Your task to perform on an android device: empty trash in google photos Image 0: 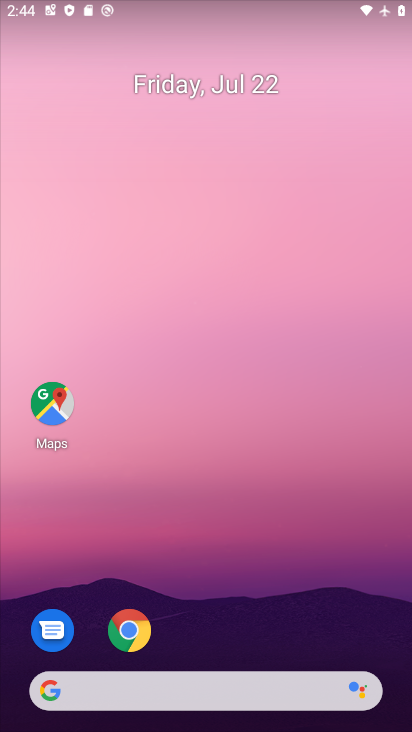
Step 0: drag from (185, 677) to (170, 146)
Your task to perform on an android device: empty trash in google photos Image 1: 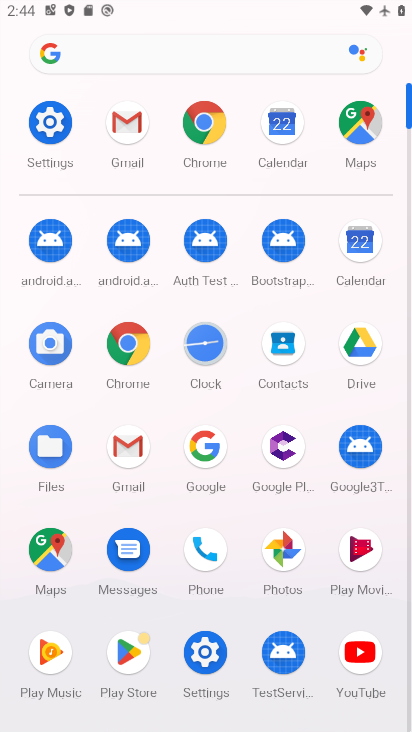
Step 1: click (284, 548)
Your task to perform on an android device: empty trash in google photos Image 2: 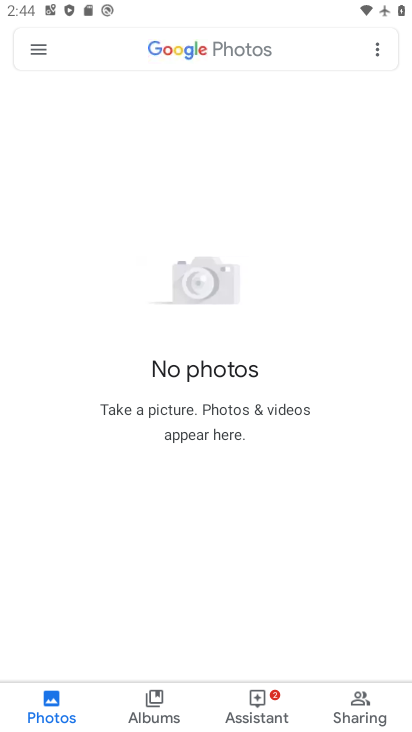
Step 2: click (38, 49)
Your task to perform on an android device: empty trash in google photos Image 3: 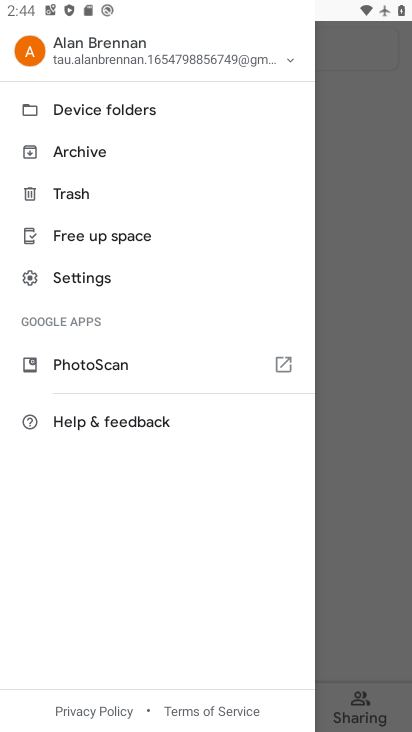
Step 3: click (60, 191)
Your task to perform on an android device: empty trash in google photos Image 4: 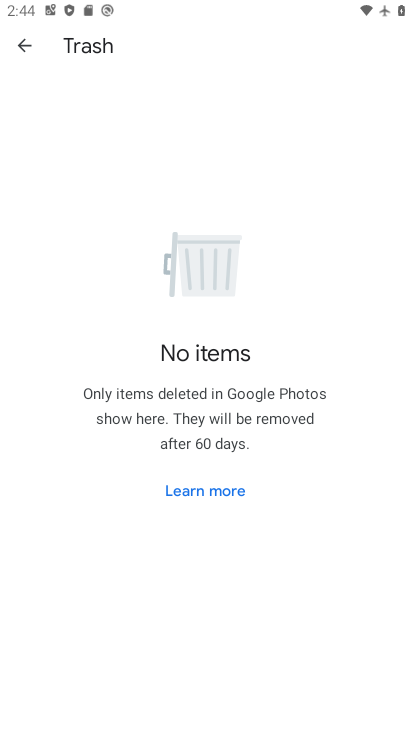
Step 4: task complete